Your task to perform on an android device: Show me recent news Image 0: 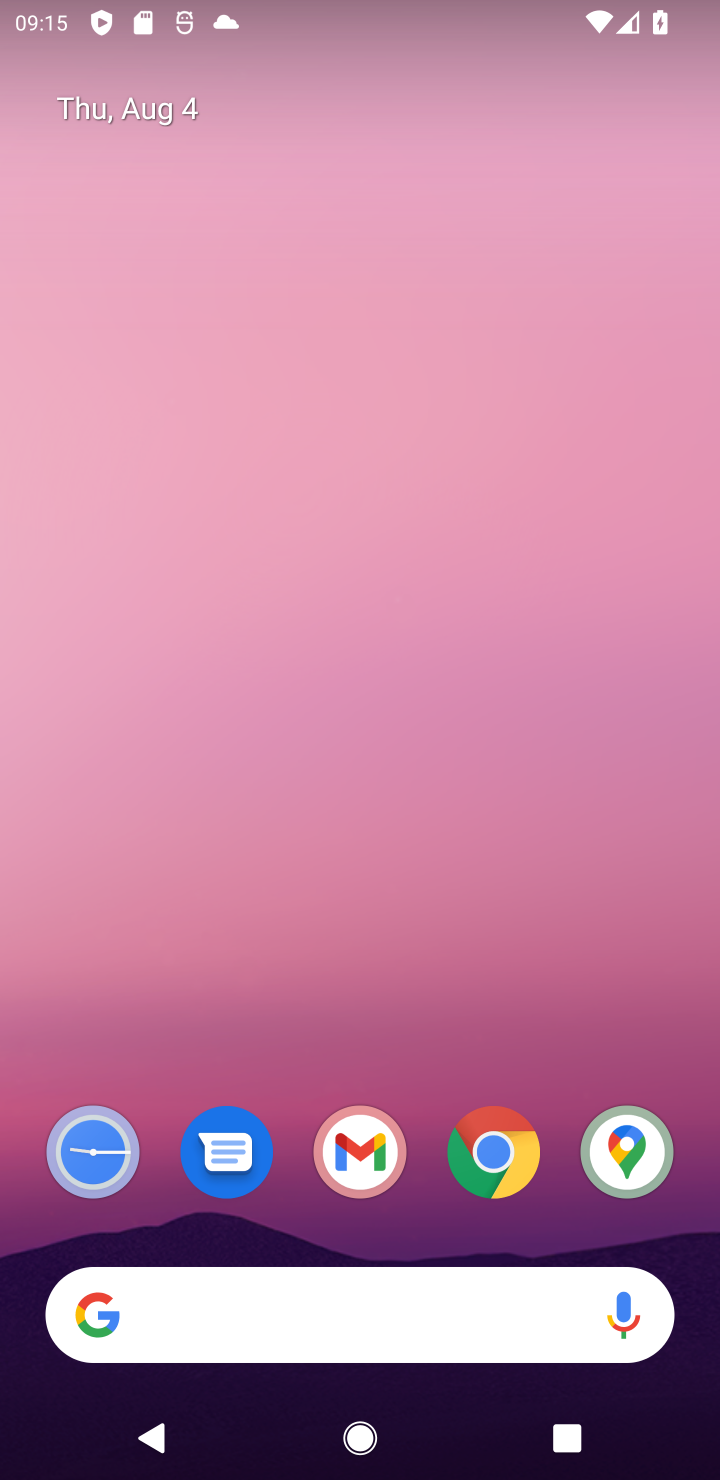
Step 0: click (296, 1305)
Your task to perform on an android device: Show me recent news Image 1: 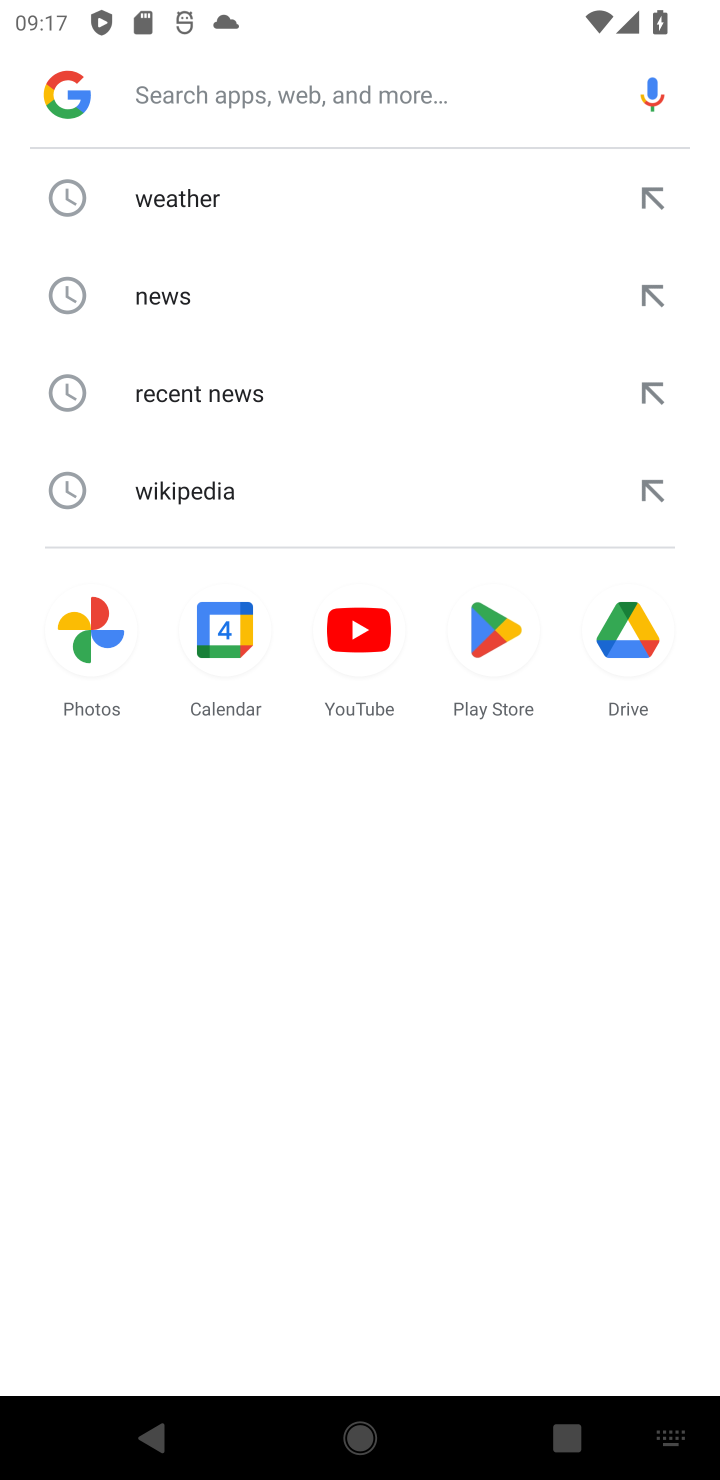
Step 1: click (212, 277)
Your task to perform on an android device: Show me recent news Image 2: 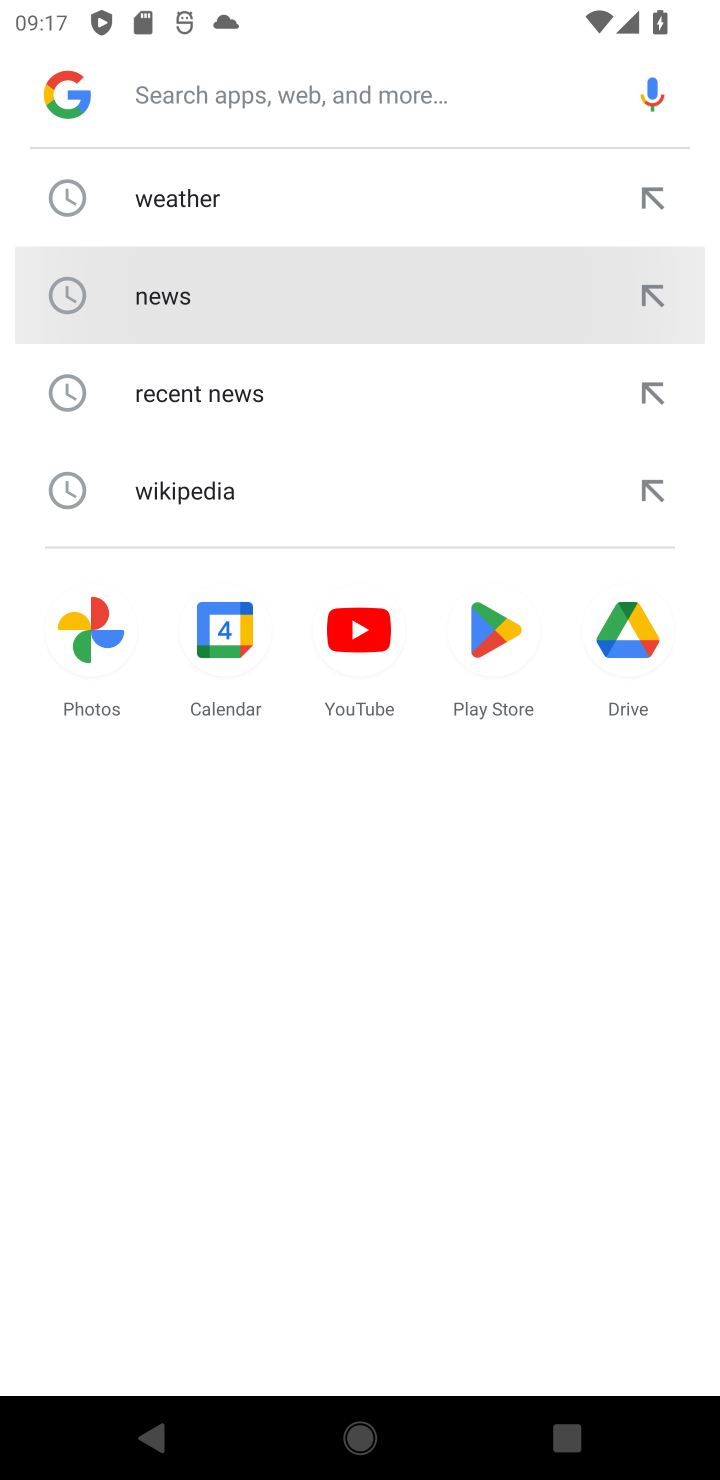
Step 2: task complete